Your task to perform on an android device: Empty the shopping cart on costco. Add acer predator to the cart on costco Image 0: 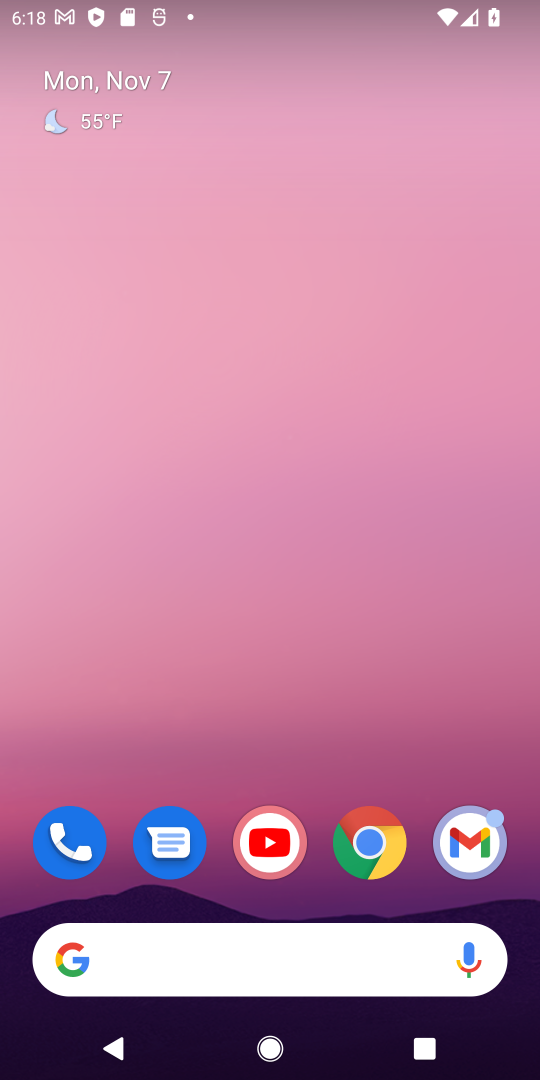
Step 0: click (371, 838)
Your task to perform on an android device: Empty the shopping cart on costco. Add acer predator to the cart on costco Image 1: 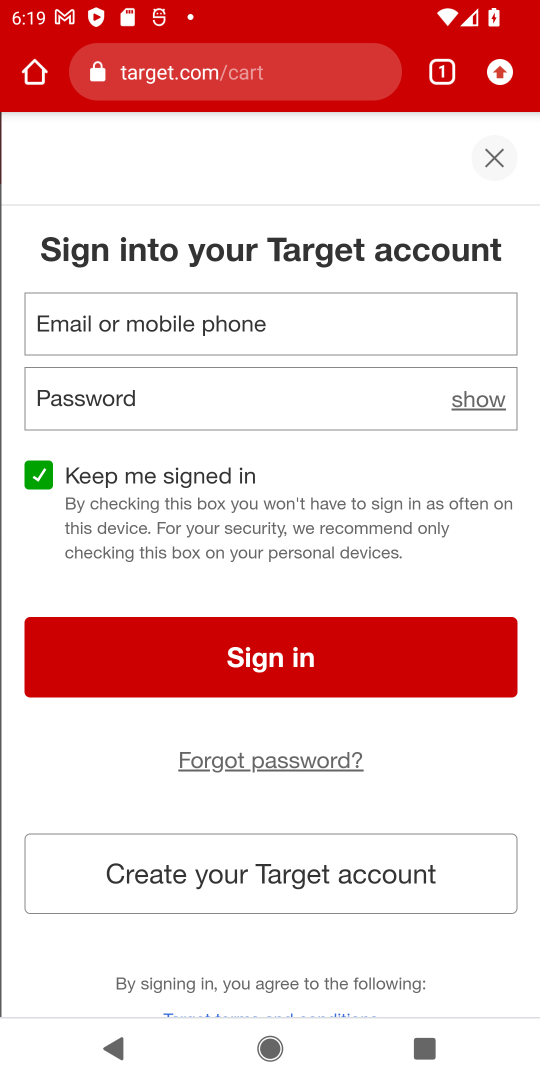
Step 1: click (308, 79)
Your task to perform on an android device: Empty the shopping cart on costco. Add acer predator to the cart on costco Image 2: 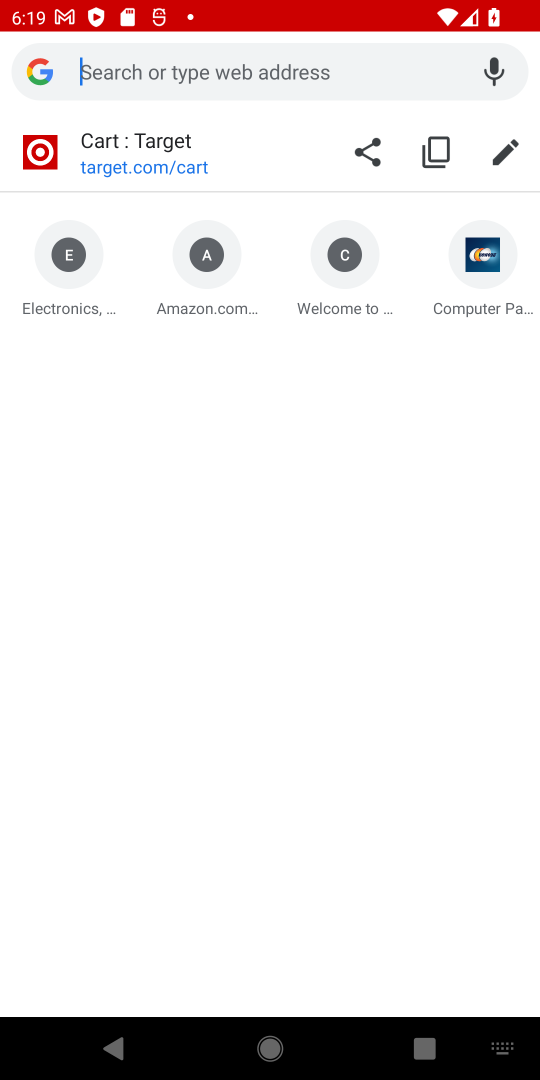
Step 2: type " costco"
Your task to perform on an android device: Empty the shopping cart on costco. Add acer predator to the cart on costco Image 3: 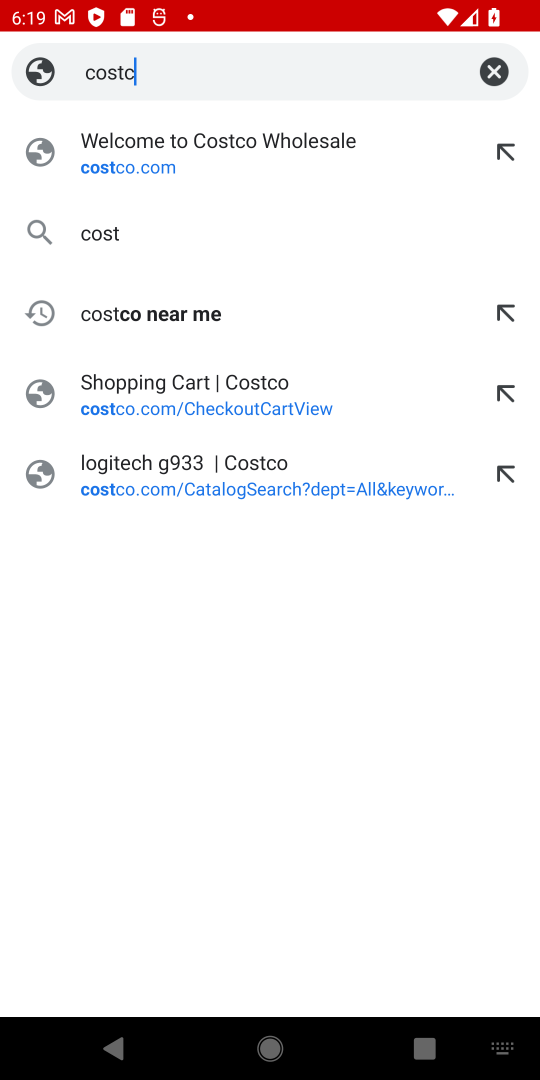
Step 3: press enter
Your task to perform on an android device: Empty the shopping cart on costco. Add acer predator to the cart on costco Image 4: 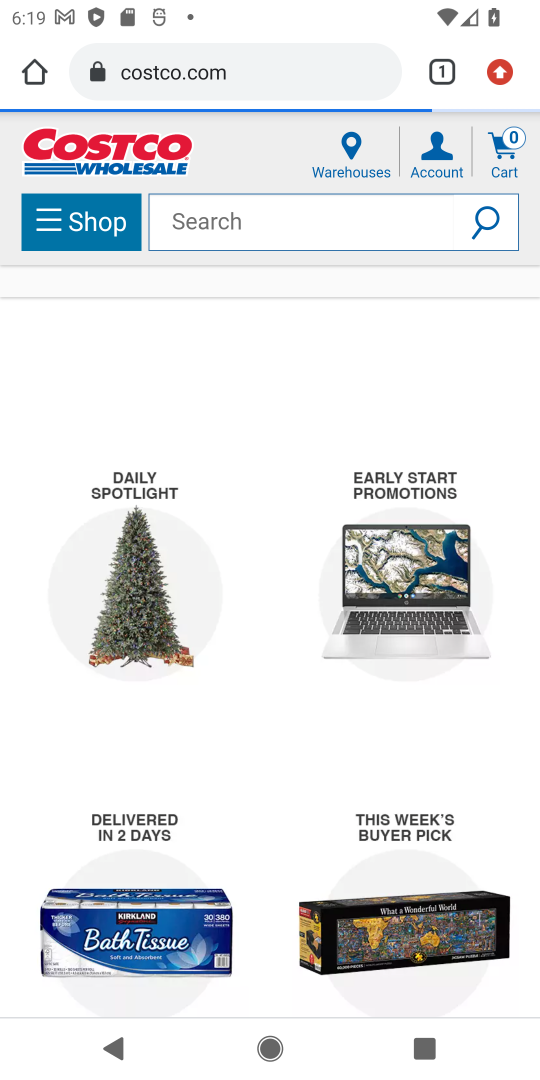
Step 4: click (225, 221)
Your task to perform on an android device: Empty the shopping cart on costco. Add acer predator to the cart on costco Image 5: 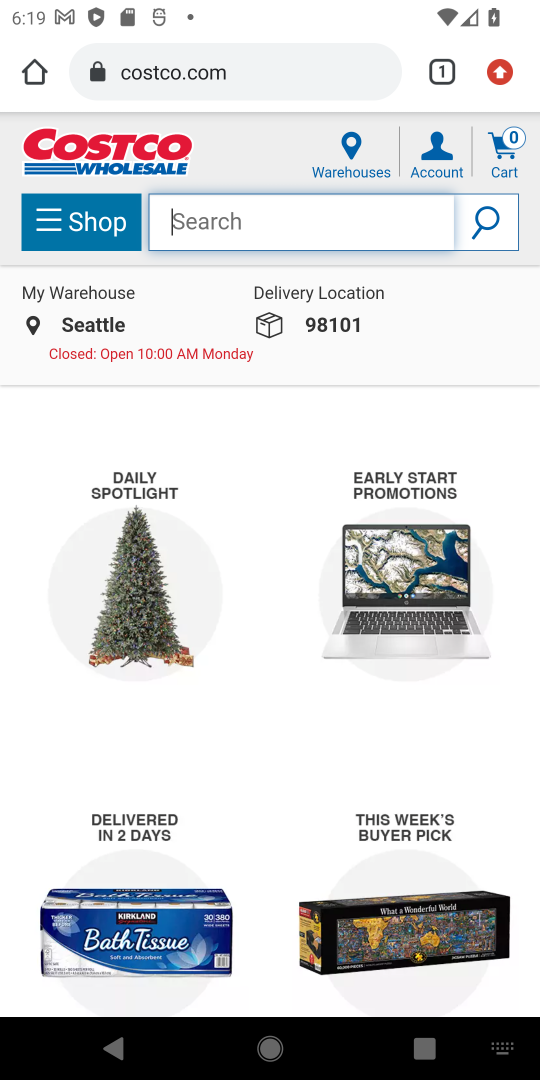
Step 5: type "acer predator"
Your task to perform on an android device: Empty the shopping cart on costco. Add acer predator to the cart on costco Image 6: 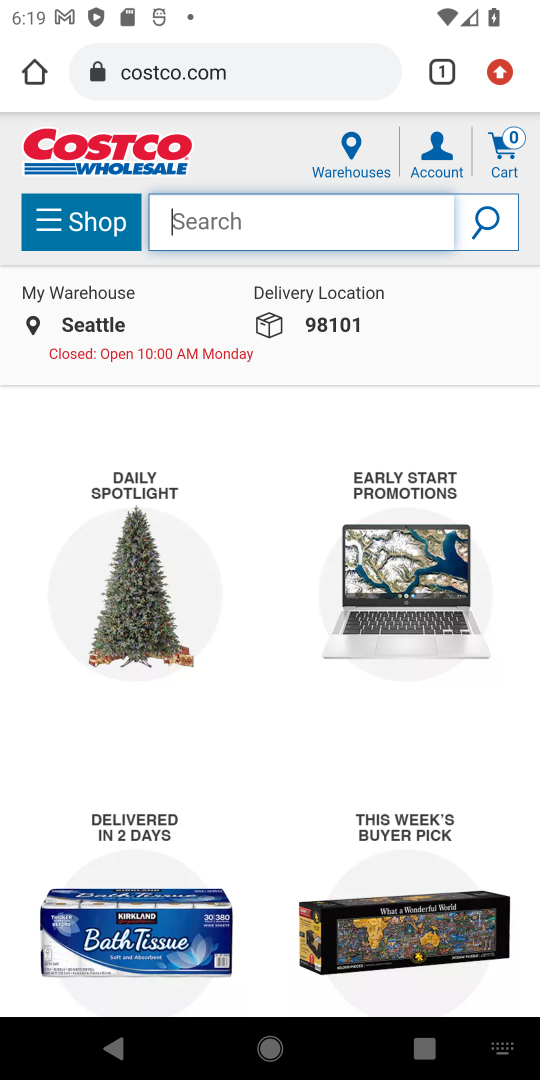
Step 6: press enter
Your task to perform on an android device: Empty the shopping cart on costco. Add acer predator to the cart on costco Image 7: 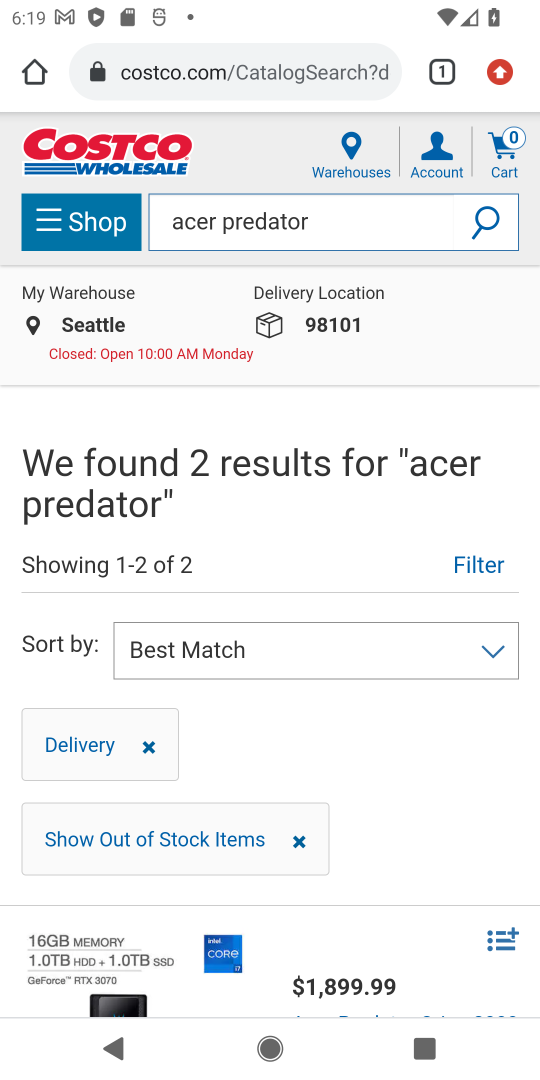
Step 7: drag from (359, 843) to (389, 343)
Your task to perform on an android device: Empty the shopping cart on costco. Add acer predator to the cart on costco Image 8: 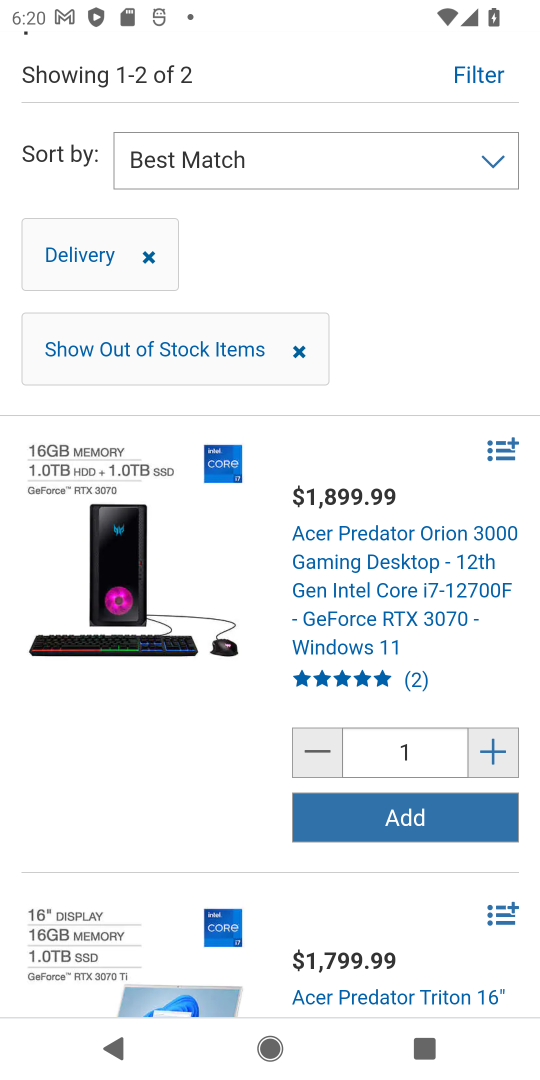
Step 8: click (437, 812)
Your task to perform on an android device: Empty the shopping cart on costco. Add acer predator to the cart on costco Image 9: 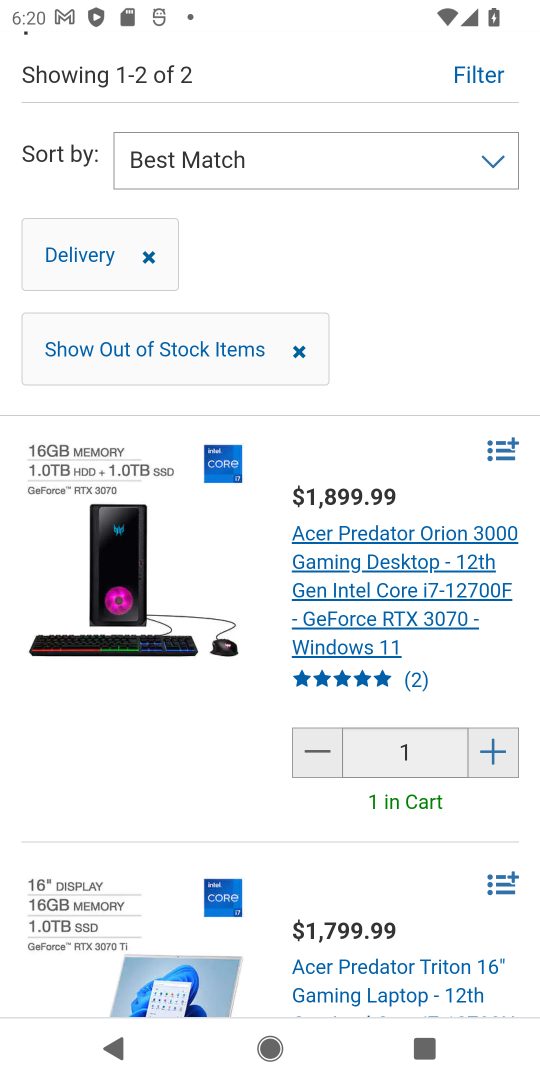
Step 9: drag from (400, 285) to (306, 919)
Your task to perform on an android device: Empty the shopping cart on costco. Add acer predator to the cart on costco Image 10: 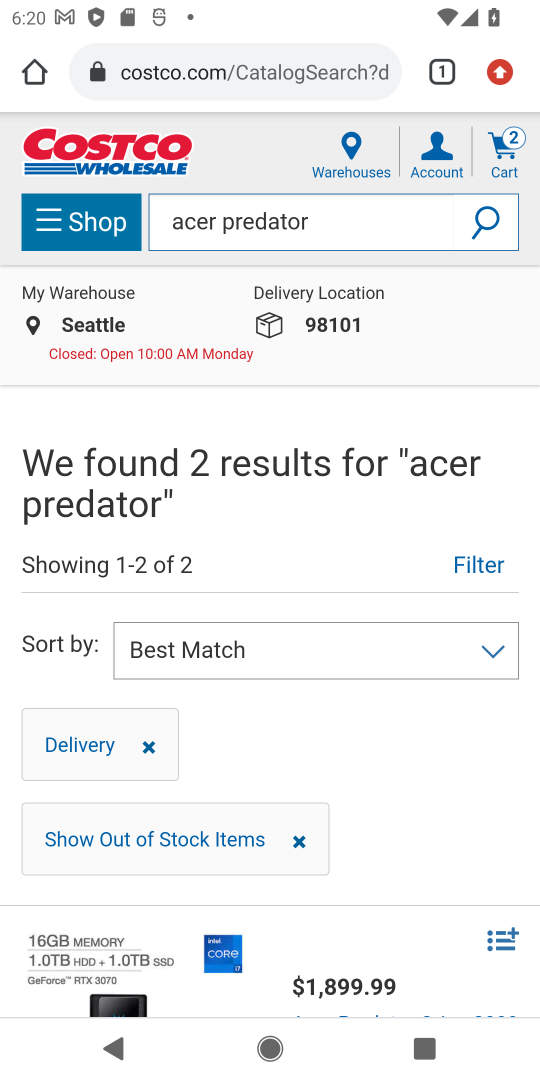
Step 10: click (497, 146)
Your task to perform on an android device: Empty the shopping cart on costco. Add acer predator to the cart on costco Image 11: 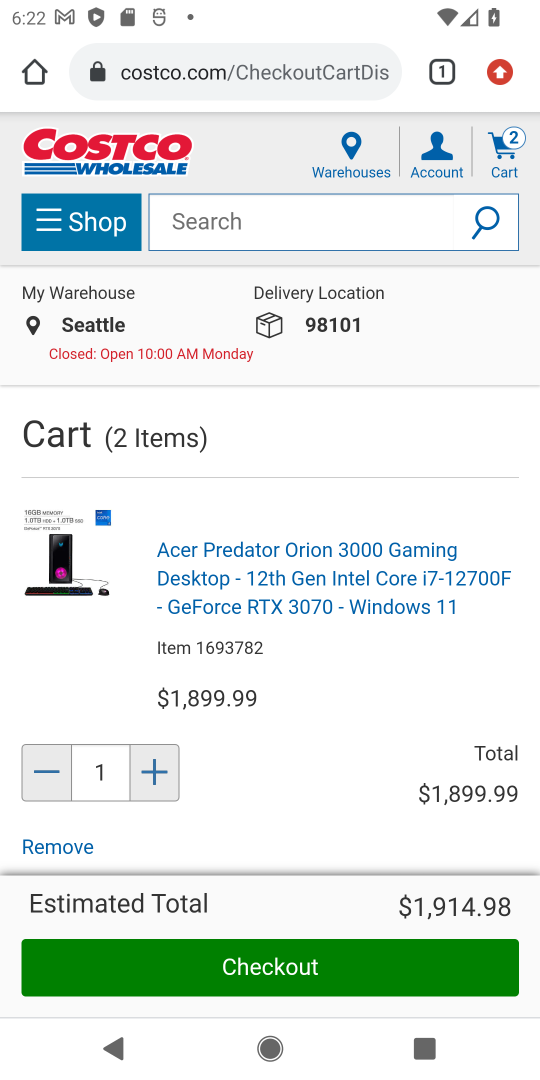
Step 11: click (287, 969)
Your task to perform on an android device: Empty the shopping cart on costco. Add acer predator to the cart on costco Image 12: 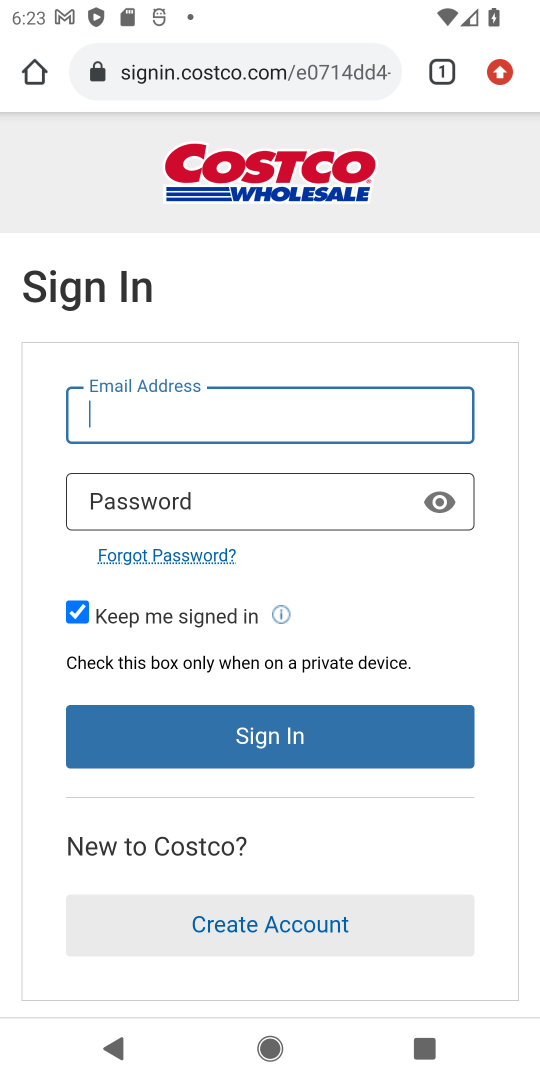
Step 12: task complete